Your task to perform on an android device: open app "Messenger Lite" (install if not already installed) Image 0: 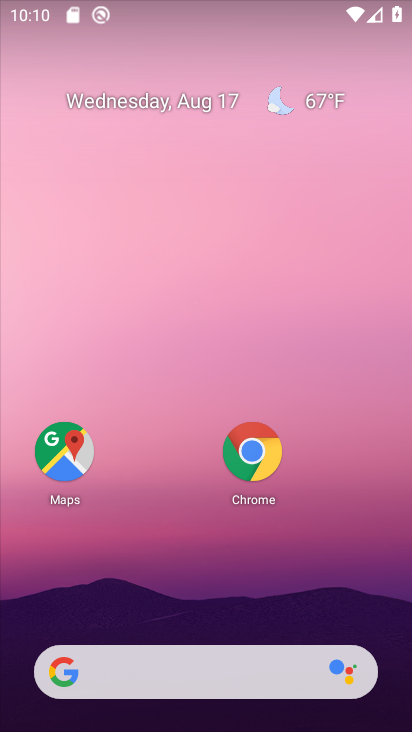
Step 0: drag from (169, 622) to (175, 48)
Your task to perform on an android device: open app "Messenger Lite" (install if not already installed) Image 1: 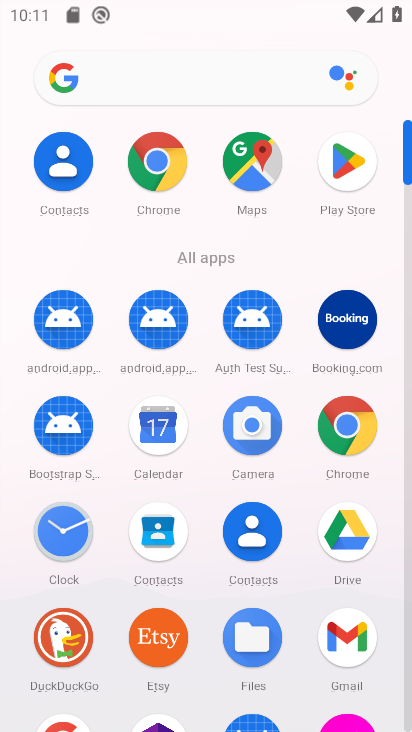
Step 1: click (344, 159)
Your task to perform on an android device: open app "Messenger Lite" (install if not already installed) Image 2: 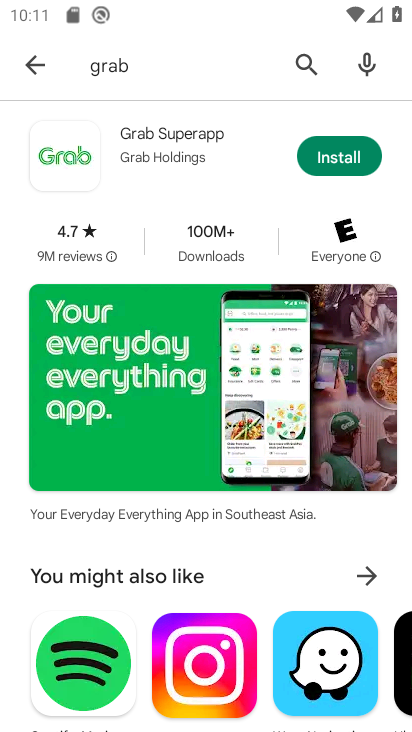
Step 2: click (32, 63)
Your task to perform on an android device: open app "Messenger Lite" (install if not already installed) Image 3: 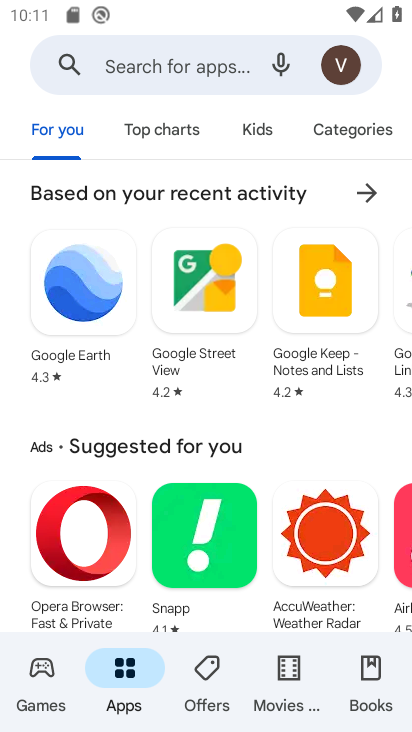
Step 3: click (164, 64)
Your task to perform on an android device: open app "Messenger Lite" (install if not already installed) Image 4: 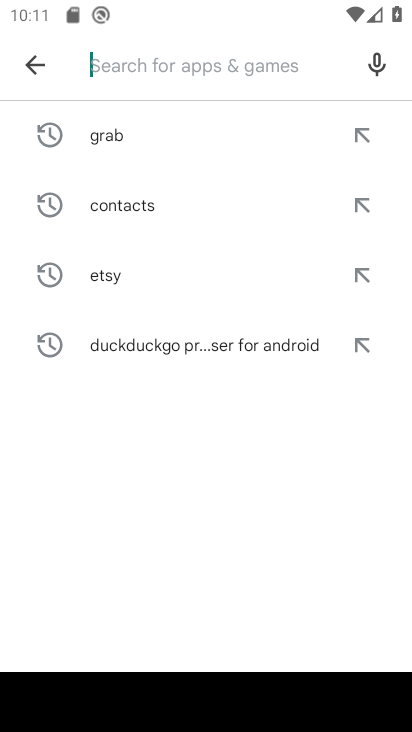
Step 4: type "Messenger Lite"
Your task to perform on an android device: open app "Messenger Lite" (install if not already installed) Image 5: 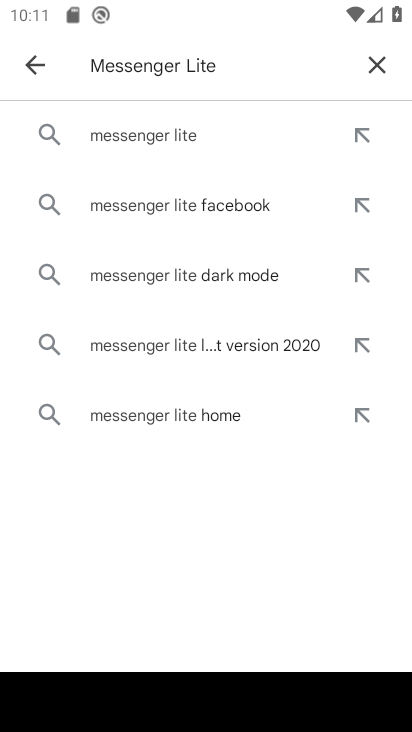
Step 5: click (176, 138)
Your task to perform on an android device: open app "Messenger Lite" (install if not already installed) Image 6: 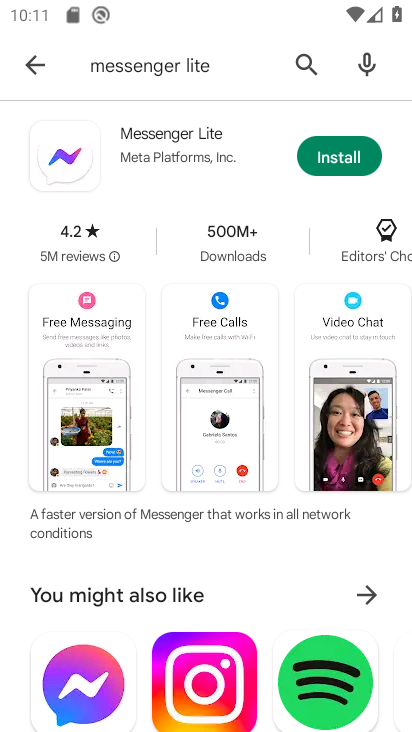
Step 6: click (331, 163)
Your task to perform on an android device: open app "Messenger Lite" (install if not already installed) Image 7: 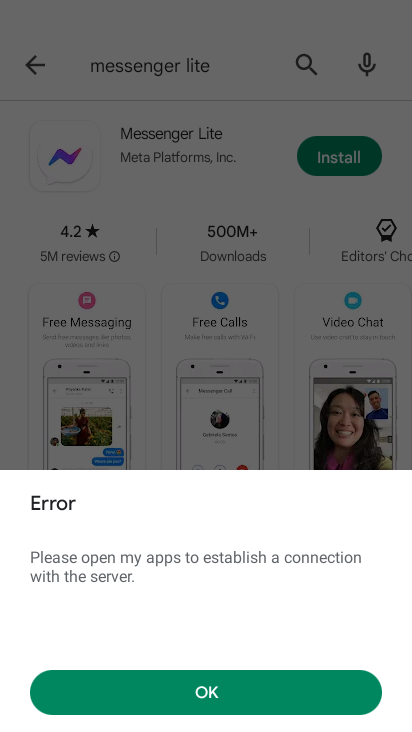
Step 7: task complete